Your task to perform on an android device: turn on notifications settings in the gmail app Image 0: 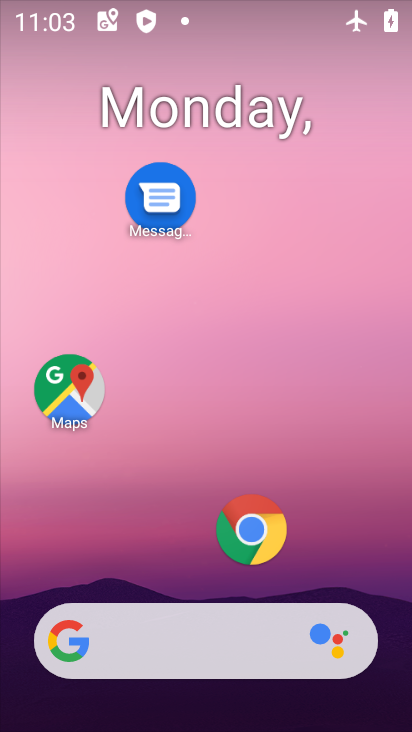
Step 0: drag from (182, 480) to (303, 125)
Your task to perform on an android device: turn on notifications settings in the gmail app Image 1: 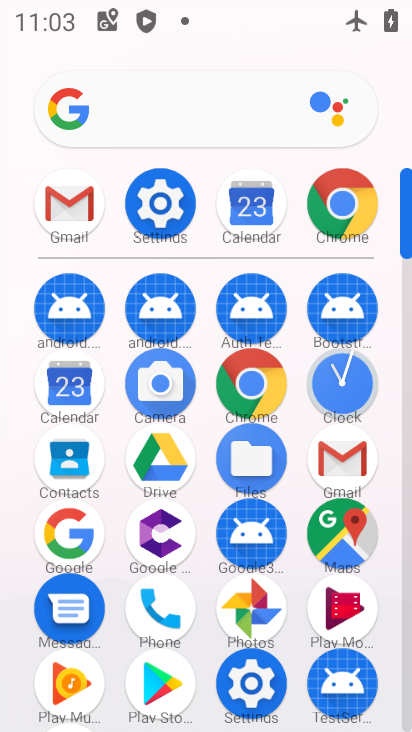
Step 1: click (337, 477)
Your task to perform on an android device: turn on notifications settings in the gmail app Image 2: 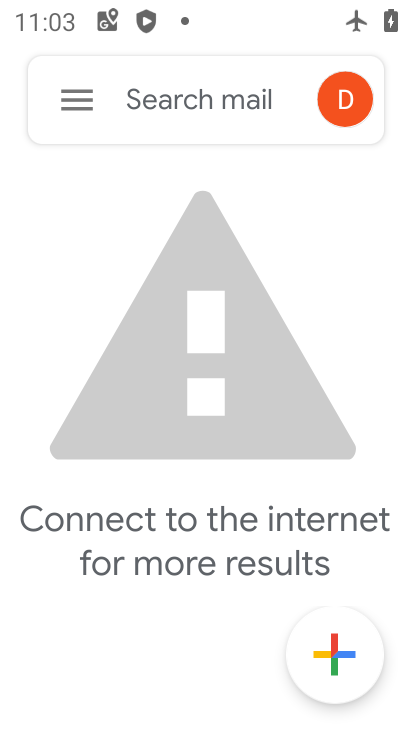
Step 2: click (74, 111)
Your task to perform on an android device: turn on notifications settings in the gmail app Image 3: 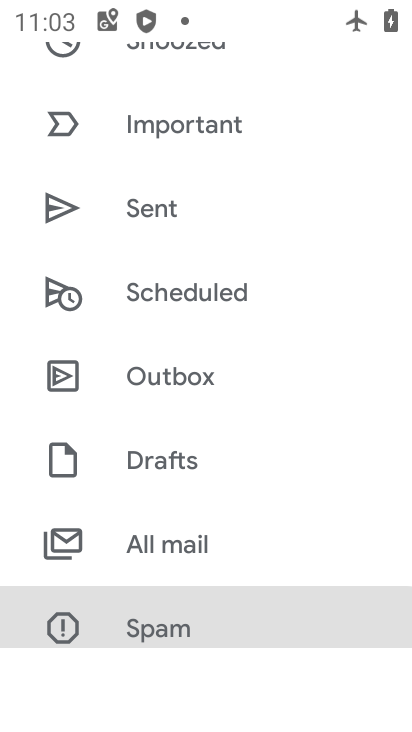
Step 3: drag from (232, 568) to (224, 30)
Your task to perform on an android device: turn on notifications settings in the gmail app Image 4: 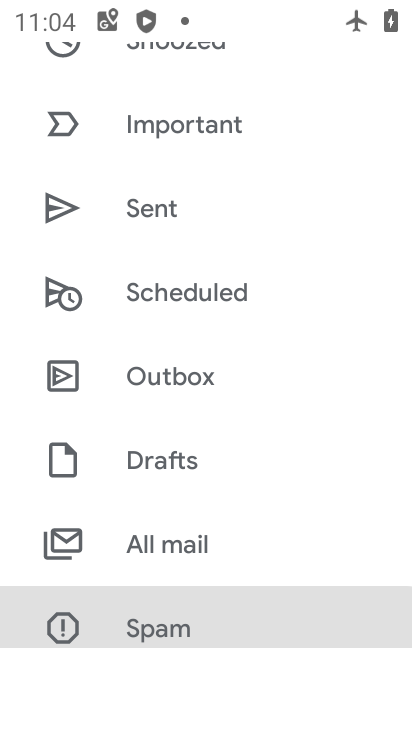
Step 4: drag from (218, 560) to (246, 58)
Your task to perform on an android device: turn on notifications settings in the gmail app Image 5: 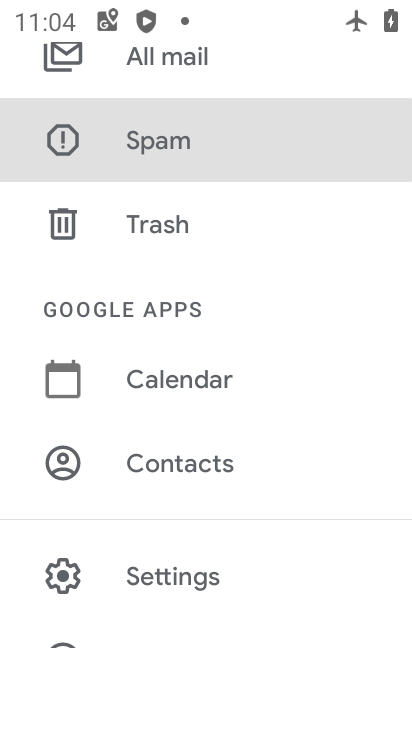
Step 5: click (225, 583)
Your task to perform on an android device: turn on notifications settings in the gmail app Image 6: 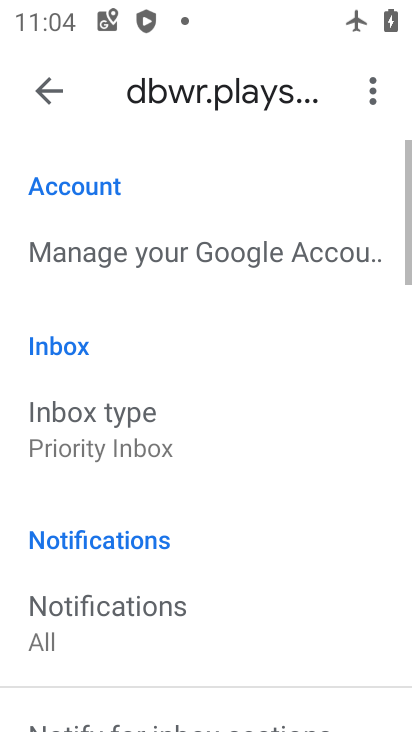
Step 6: drag from (245, 620) to (237, 335)
Your task to perform on an android device: turn on notifications settings in the gmail app Image 7: 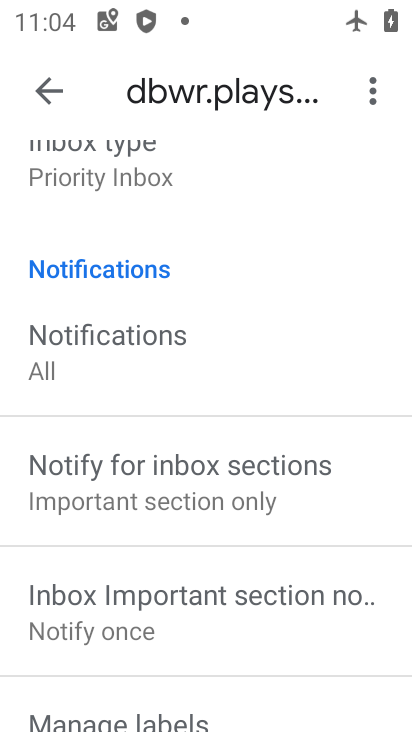
Step 7: drag from (196, 676) to (246, 331)
Your task to perform on an android device: turn on notifications settings in the gmail app Image 8: 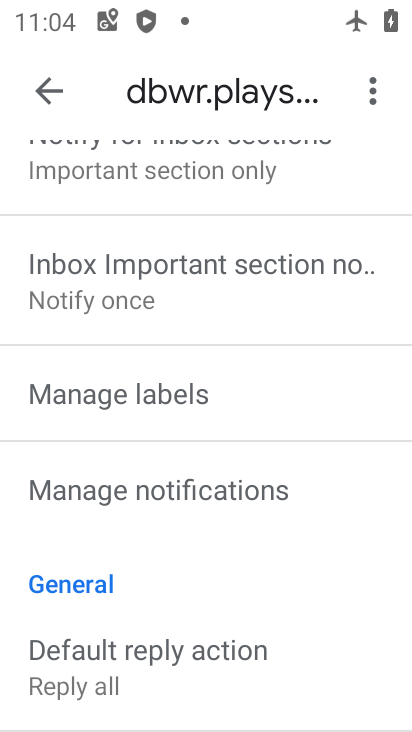
Step 8: click (230, 506)
Your task to perform on an android device: turn on notifications settings in the gmail app Image 9: 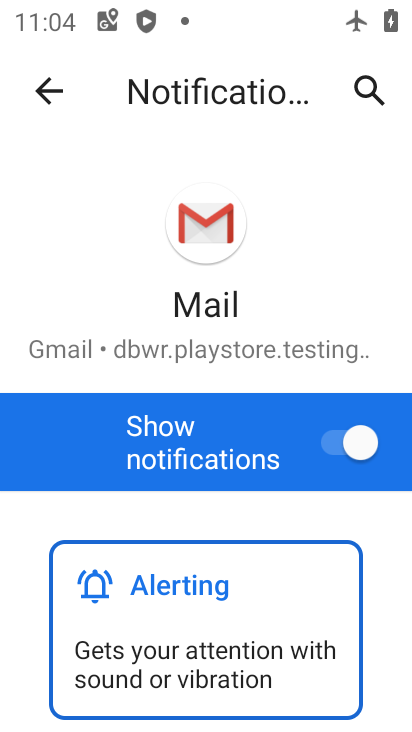
Step 9: task complete